Your task to perform on an android device: turn on wifi Image 0: 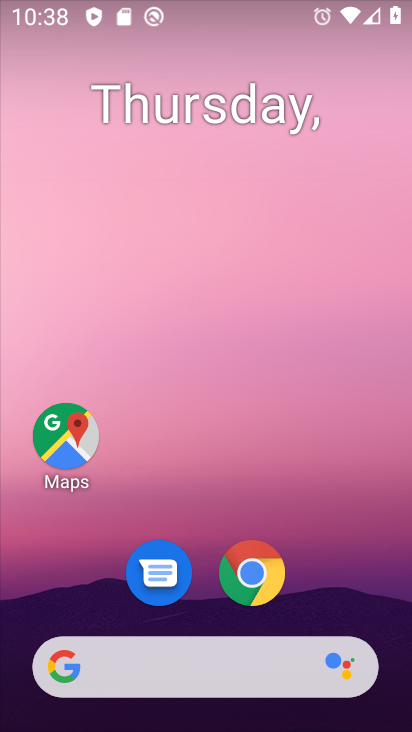
Step 0: drag from (337, 566) to (386, 171)
Your task to perform on an android device: turn on wifi Image 1: 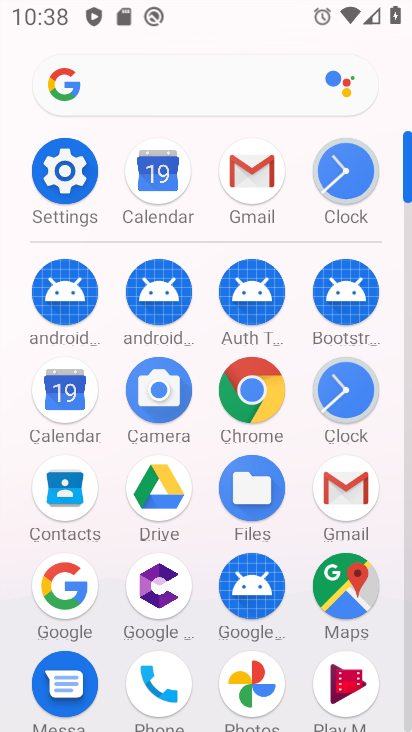
Step 1: click (52, 168)
Your task to perform on an android device: turn on wifi Image 2: 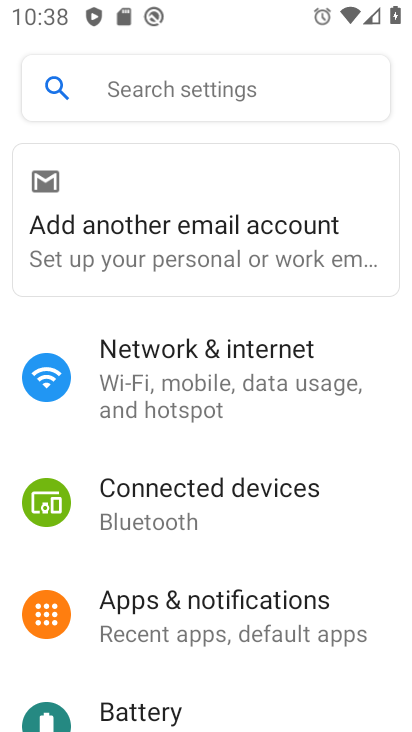
Step 2: click (170, 408)
Your task to perform on an android device: turn on wifi Image 3: 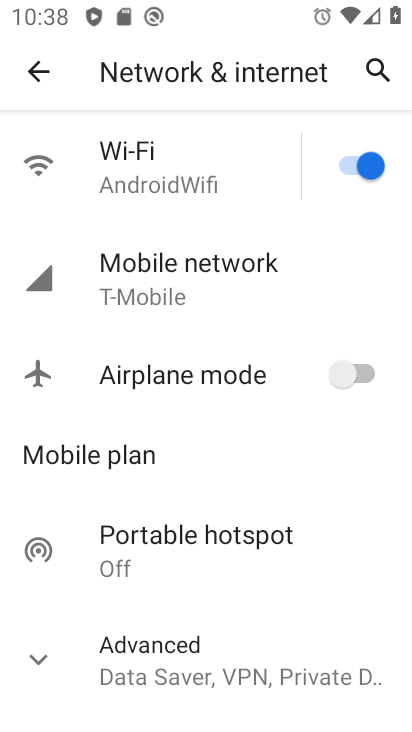
Step 3: click (192, 159)
Your task to perform on an android device: turn on wifi Image 4: 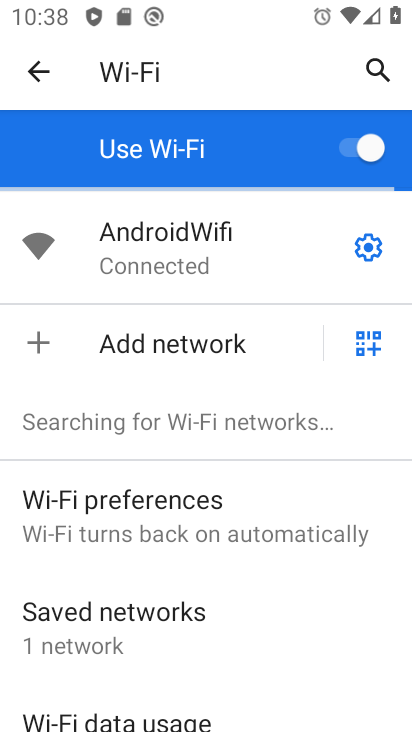
Step 4: task complete